Your task to perform on an android device: What's on my calendar tomorrow? Image 0: 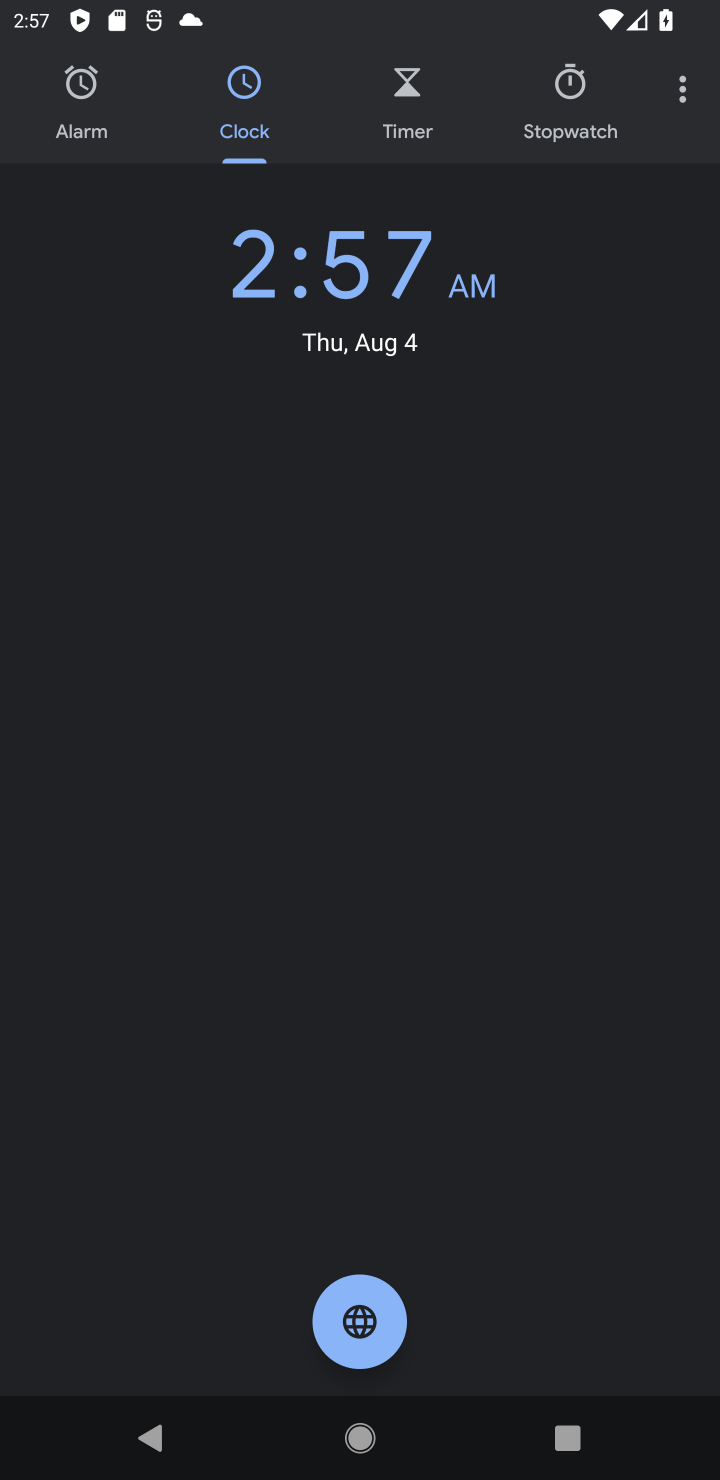
Step 0: press back button
Your task to perform on an android device: What's on my calendar tomorrow? Image 1: 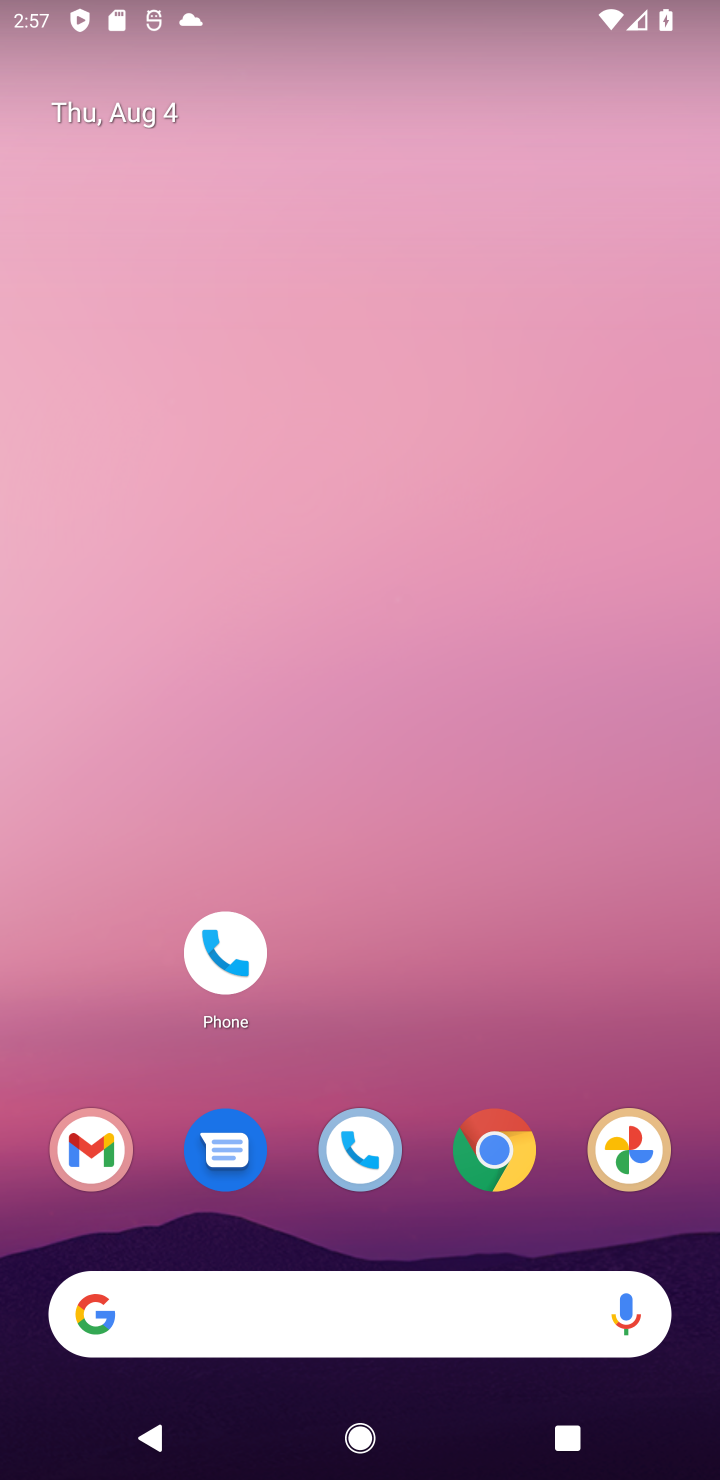
Step 1: drag from (459, 1348) to (320, 264)
Your task to perform on an android device: What's on my calendar tomorrow? Image 2: 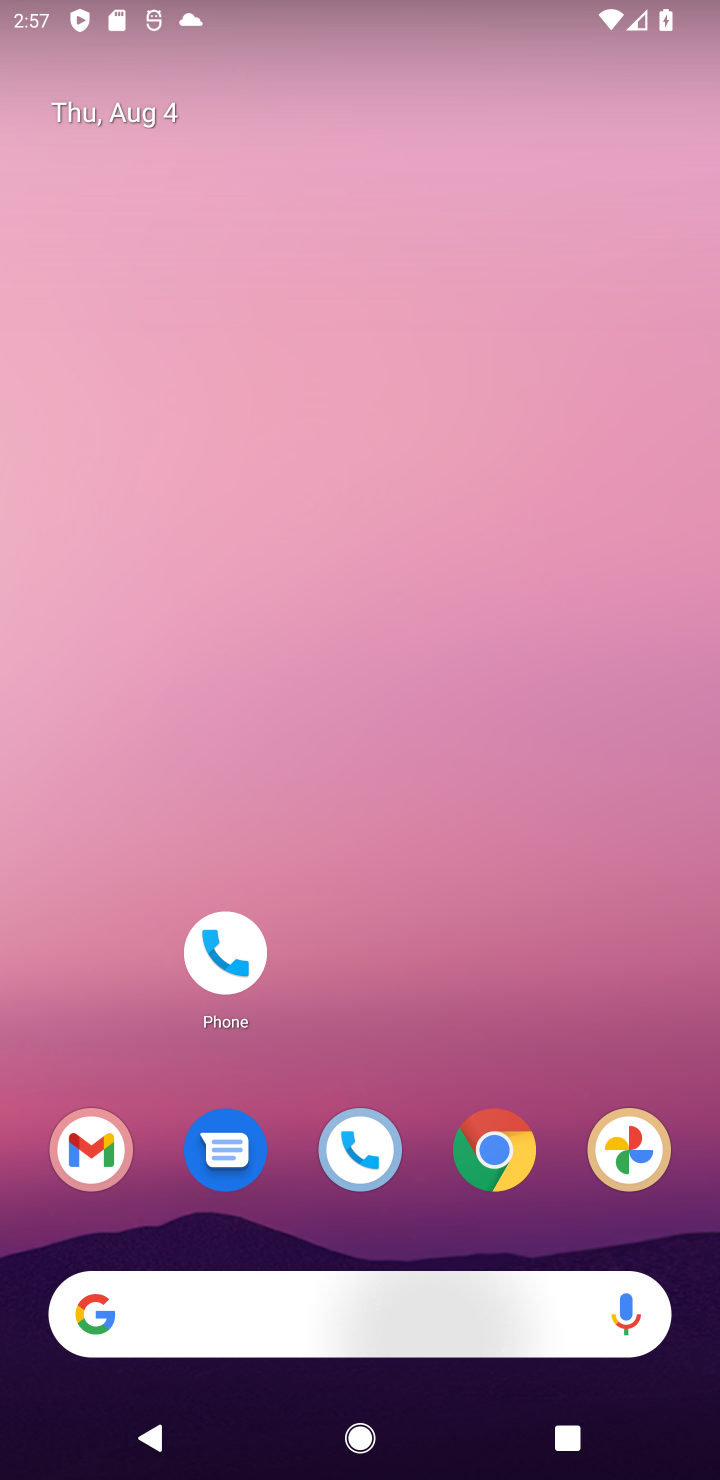
Step 2: click (259, 443)
Your task to perform on an android device: What's on my calendar tomorrow? Image 3: 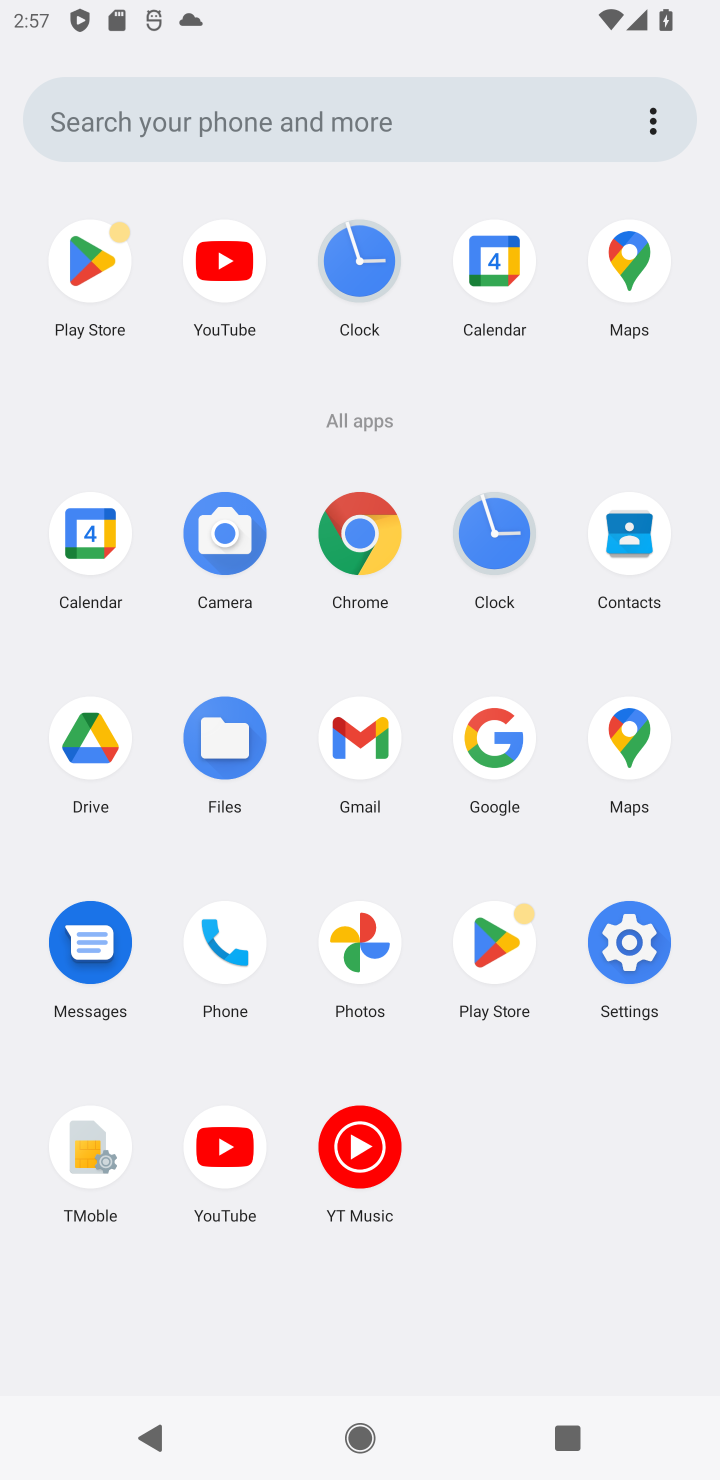
Step 3: click (491, 257)
Your task to perform on an android device: What's on my calendar tomorrow? Image 4: 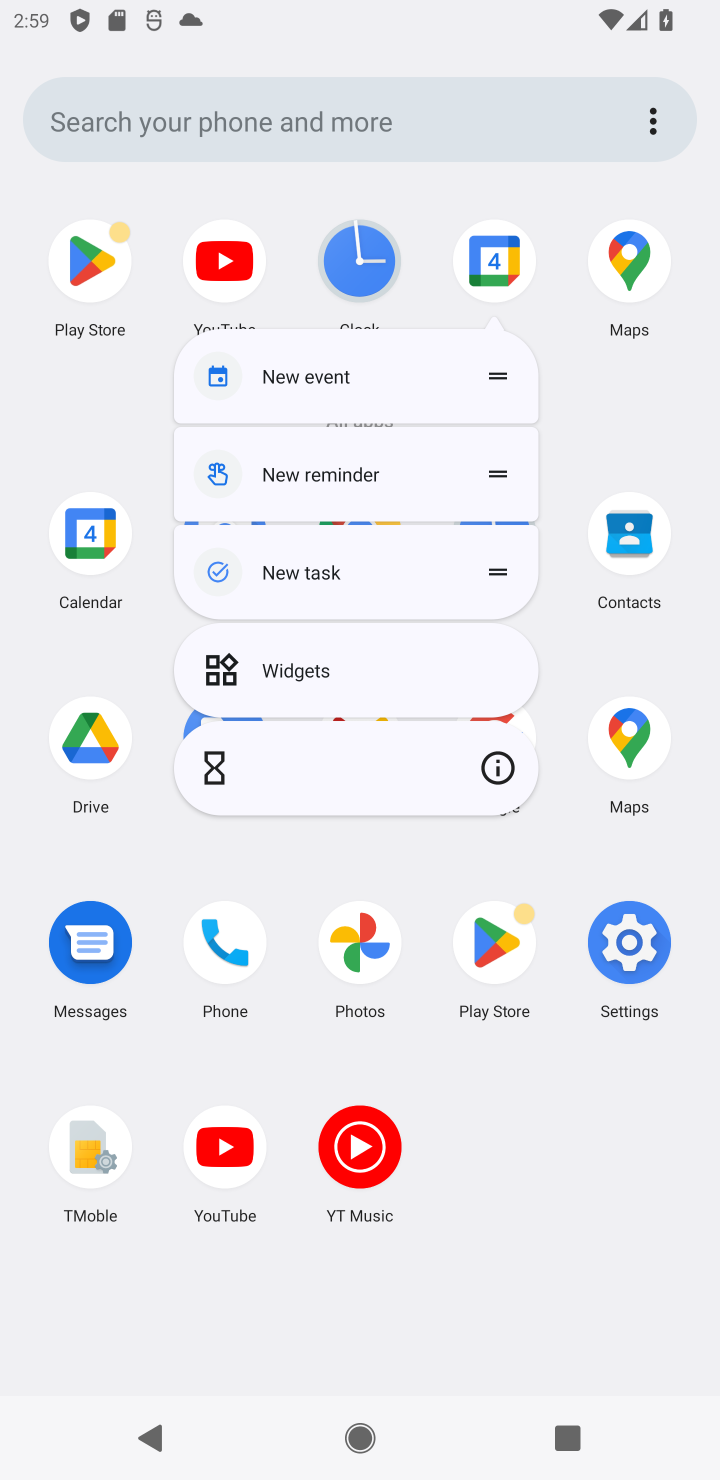
Step 4: click (304, 379)
Your task to perform on an android device: What's on my calendar tomorrow? Image 5: 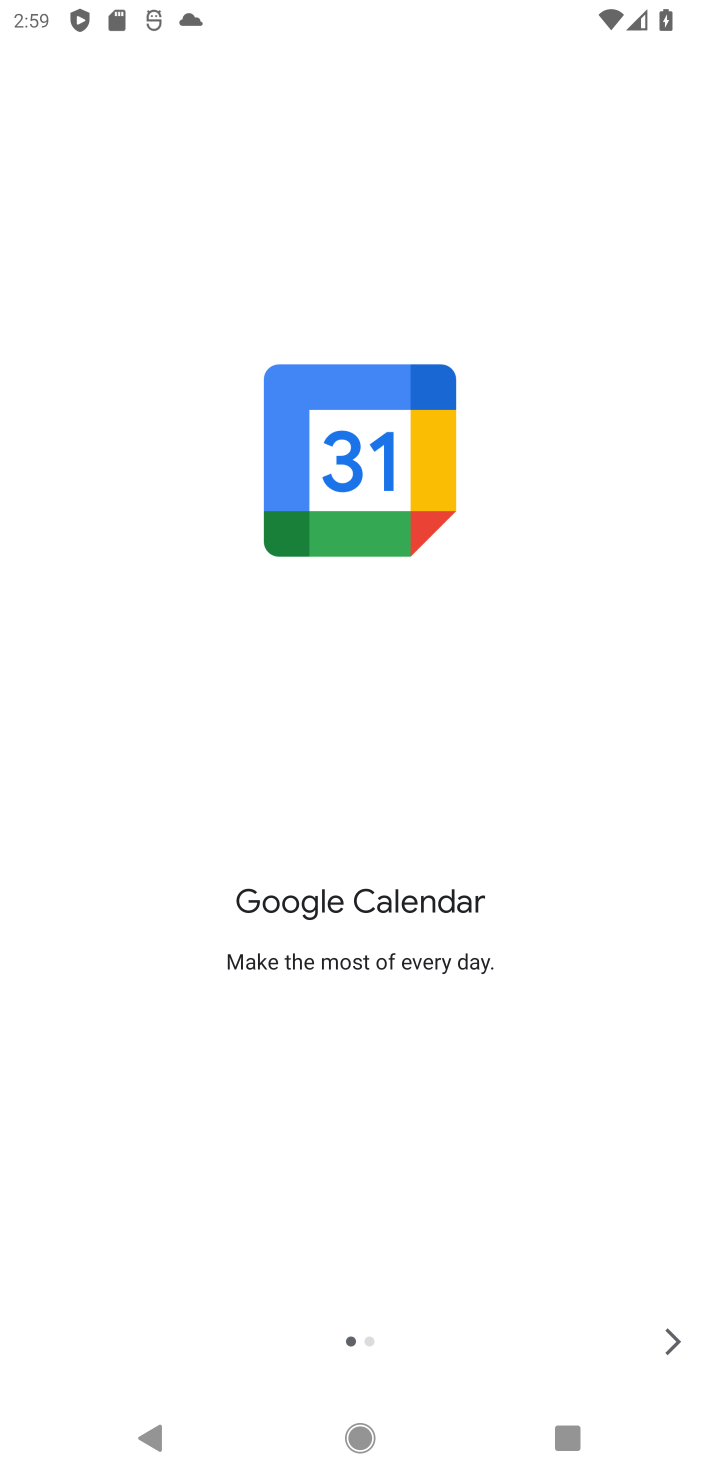
Step 5: click (675, 1344)
Your task to perform on an android device: What's on my calendar tomorrow? Image 6: 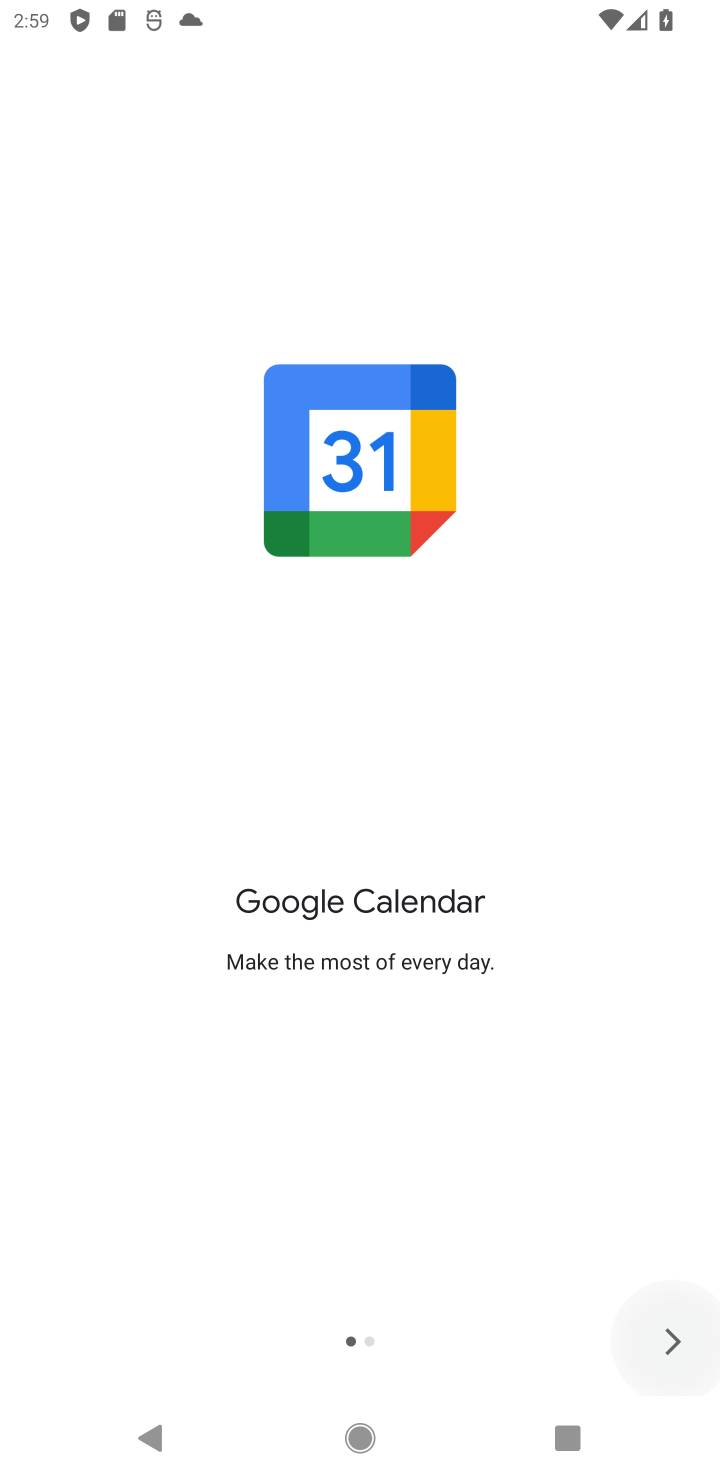
Step 6: click (675, 1344)
Your task to perform on an android device: What's on my calendar tomorrow? Image 7: 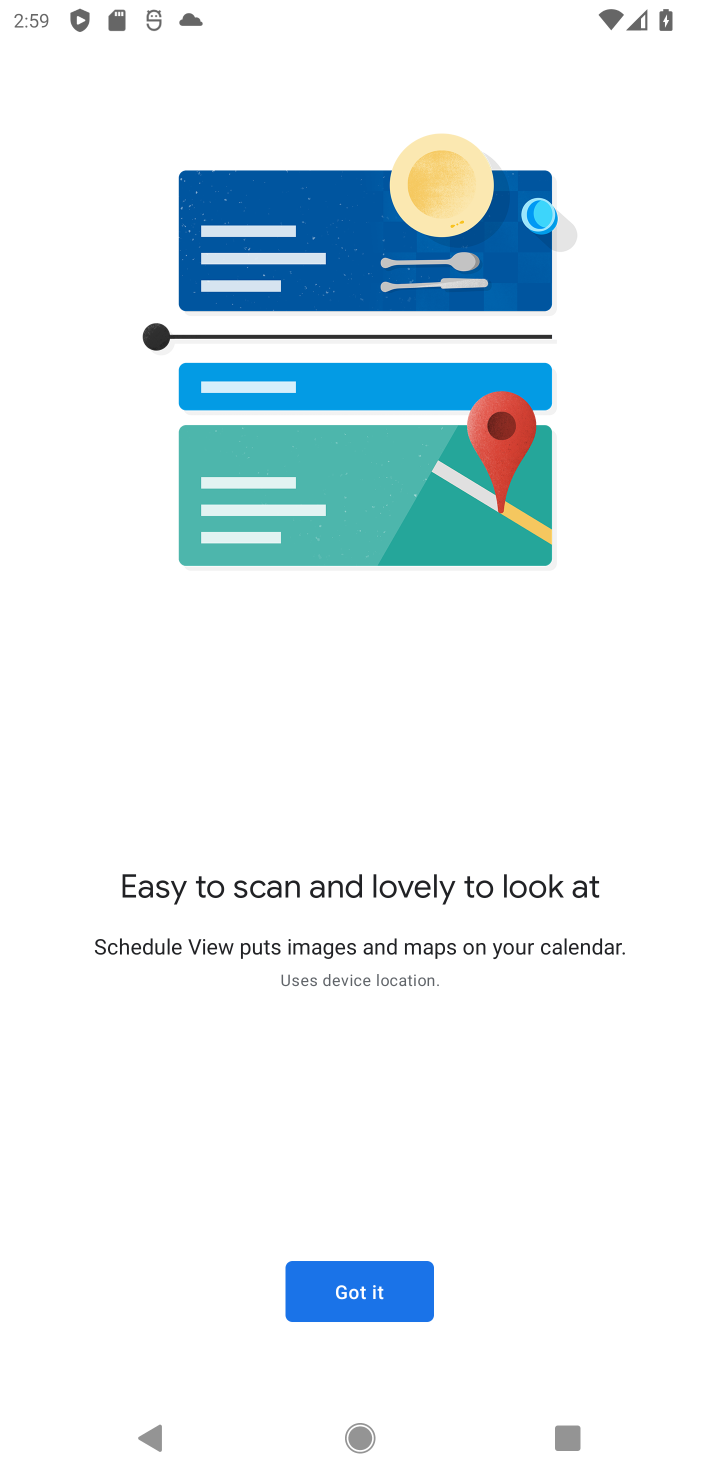
Step 7: click (372, 1292)
Your task to perform on an android device: What's on my calendar tomorrow? Image 8: 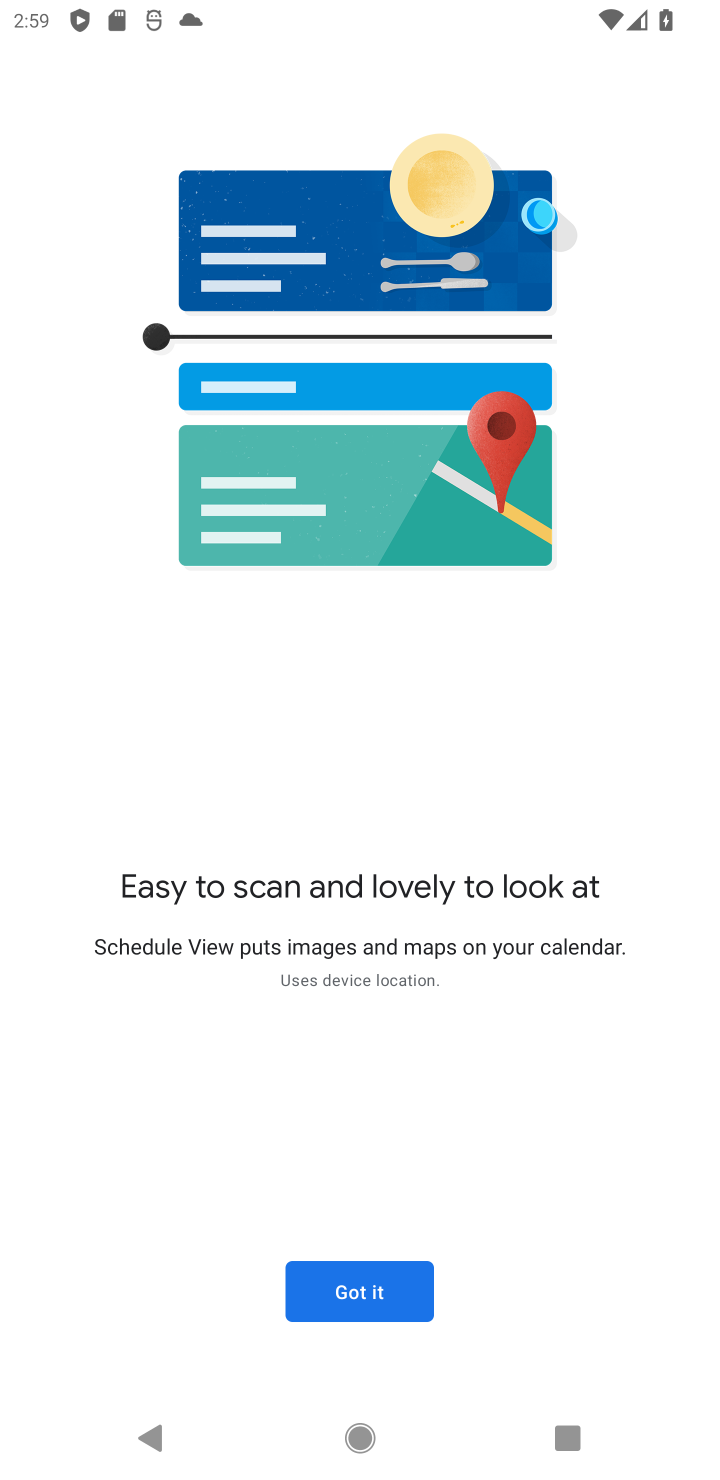
Step 8: click (374, 1292)
Your task to perform on an android device: What's on my calendar tomorrow? Image 9: 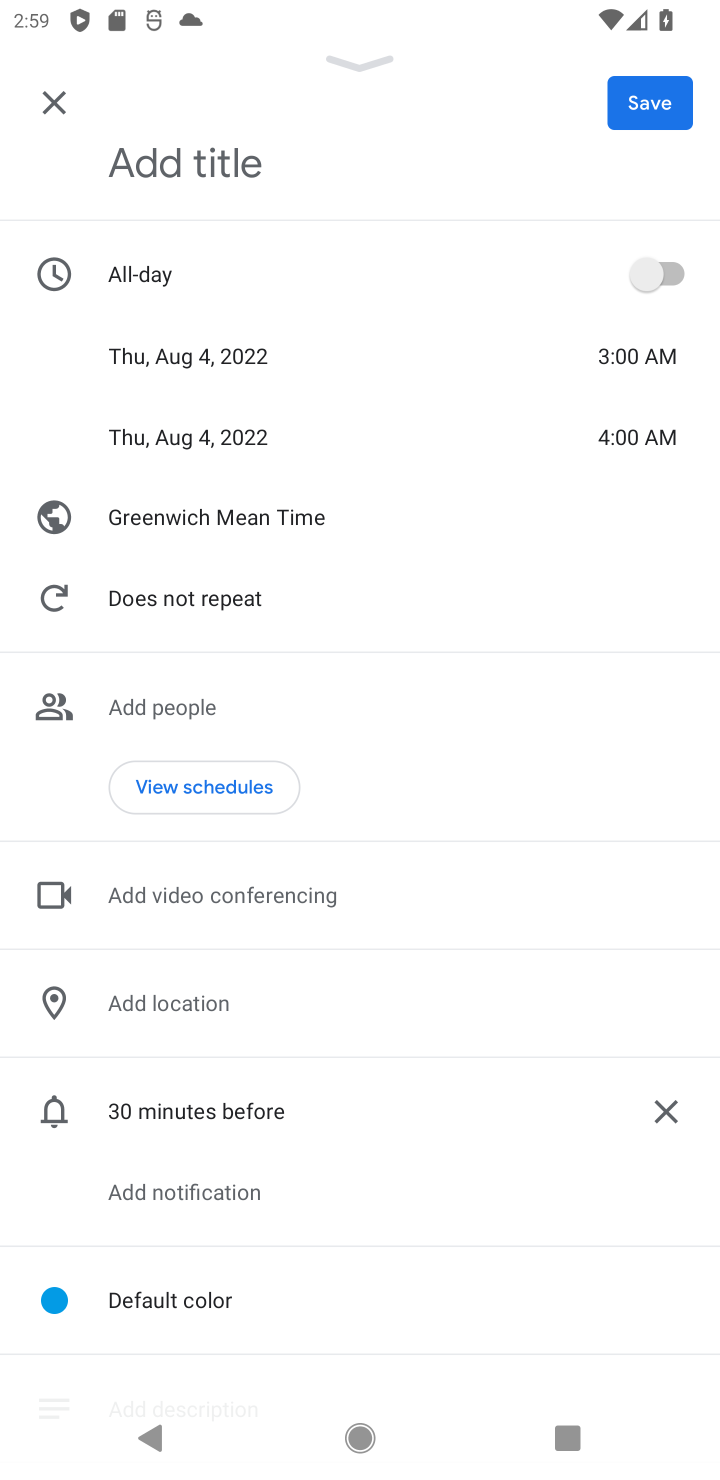
Step 9: click (47, 97)
Your task to perform on an android device: What's on my calendar tomorrow? Image 10: 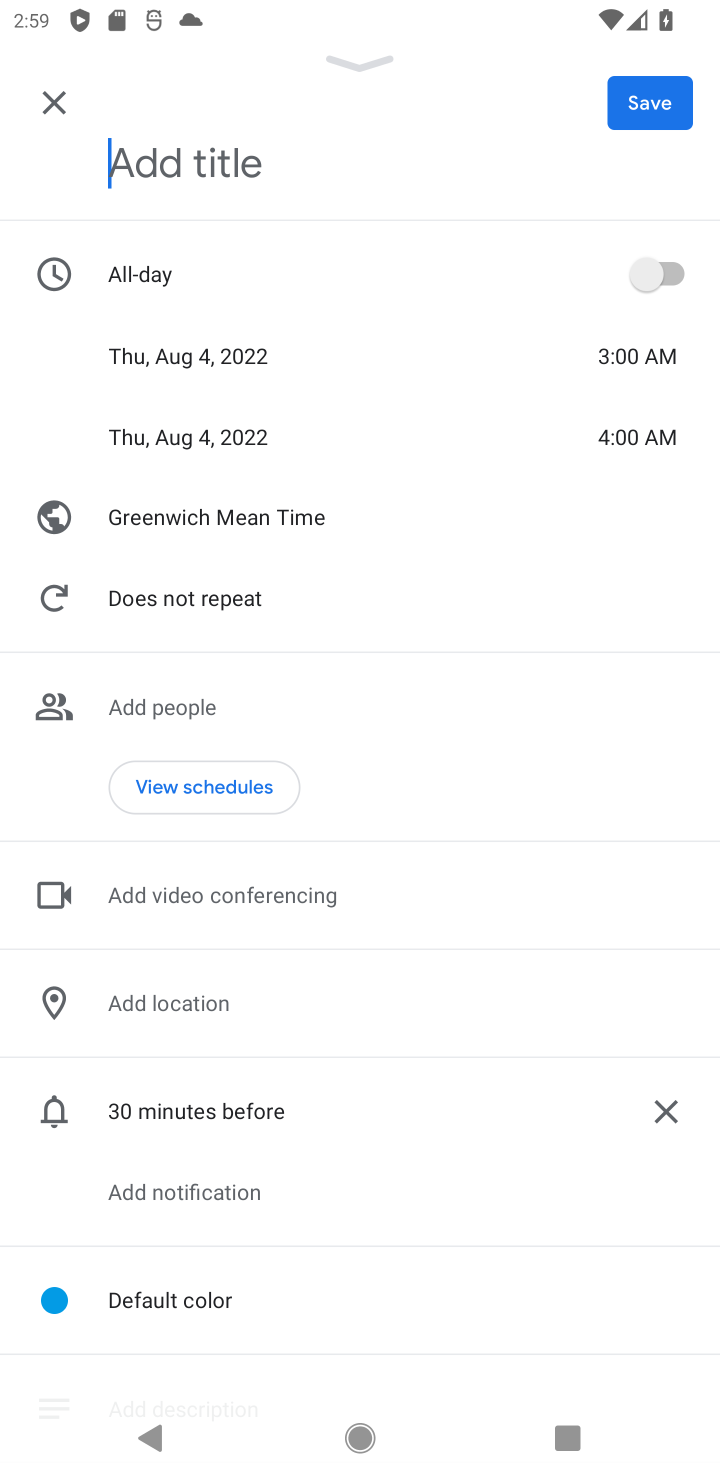
Step 10: click (47, 98)
Your task to perform on an android device: What's on my calendar tomorrow? Image 11: 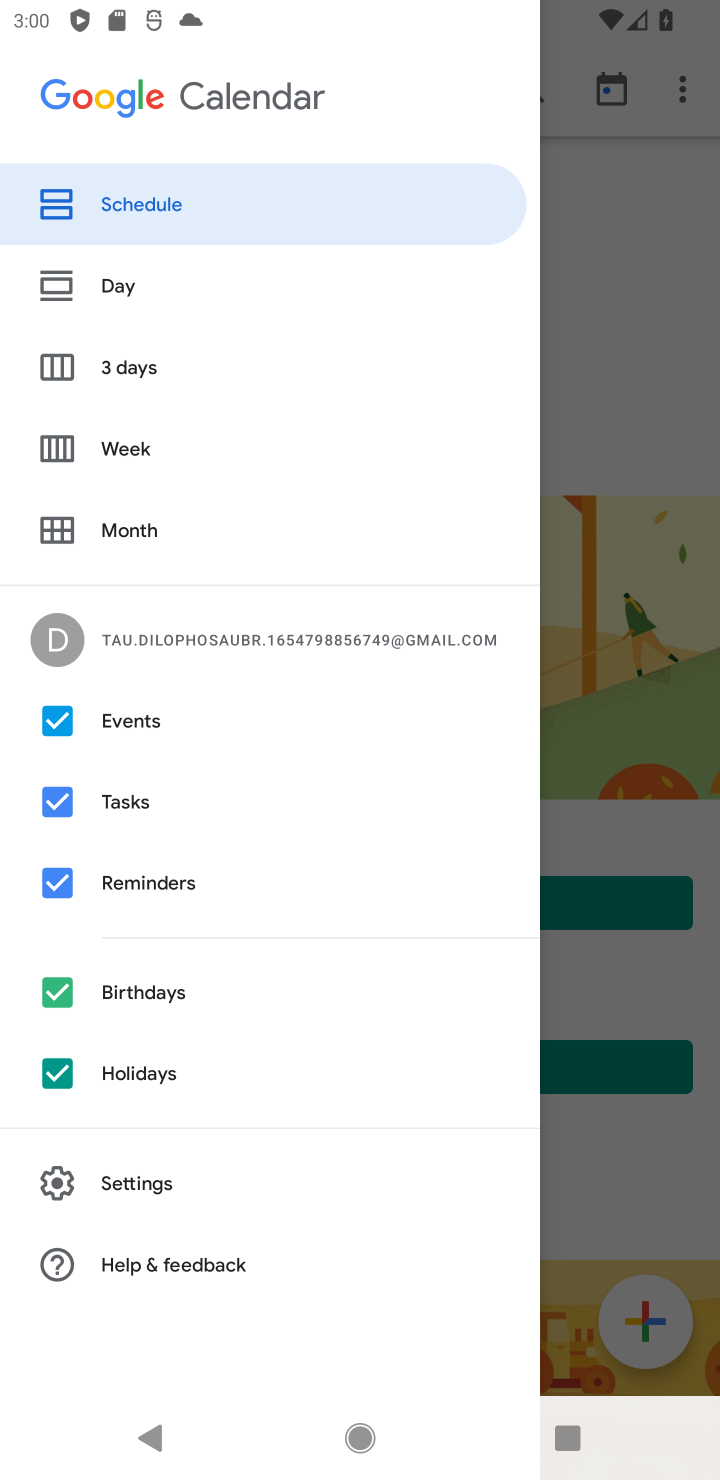
Step 11: click (116, 277)
Your task to perform on an android device: What's on my calendar tomorrow? Image 12: 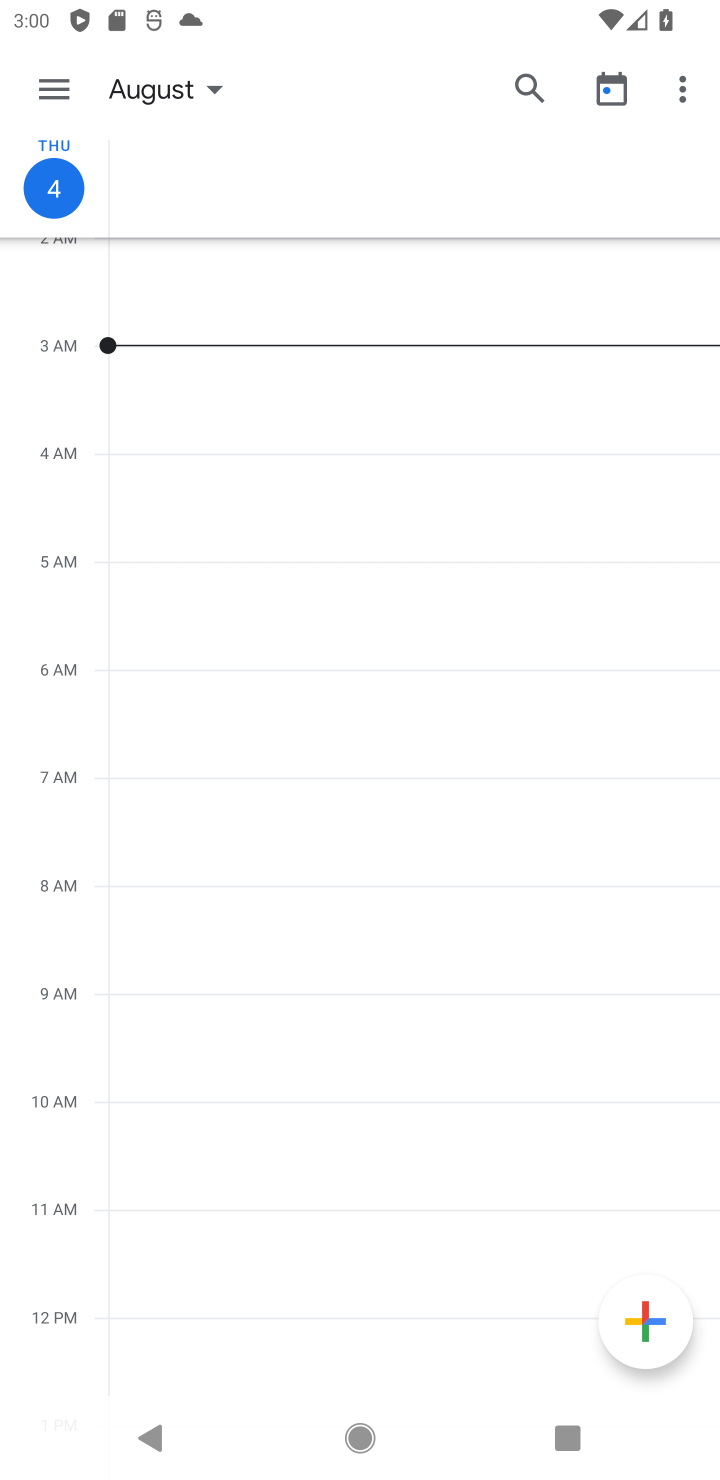
Step 12: click (209, 88)
Your task to perform on an android device: What's on my calendar tomorrow? Image 13: 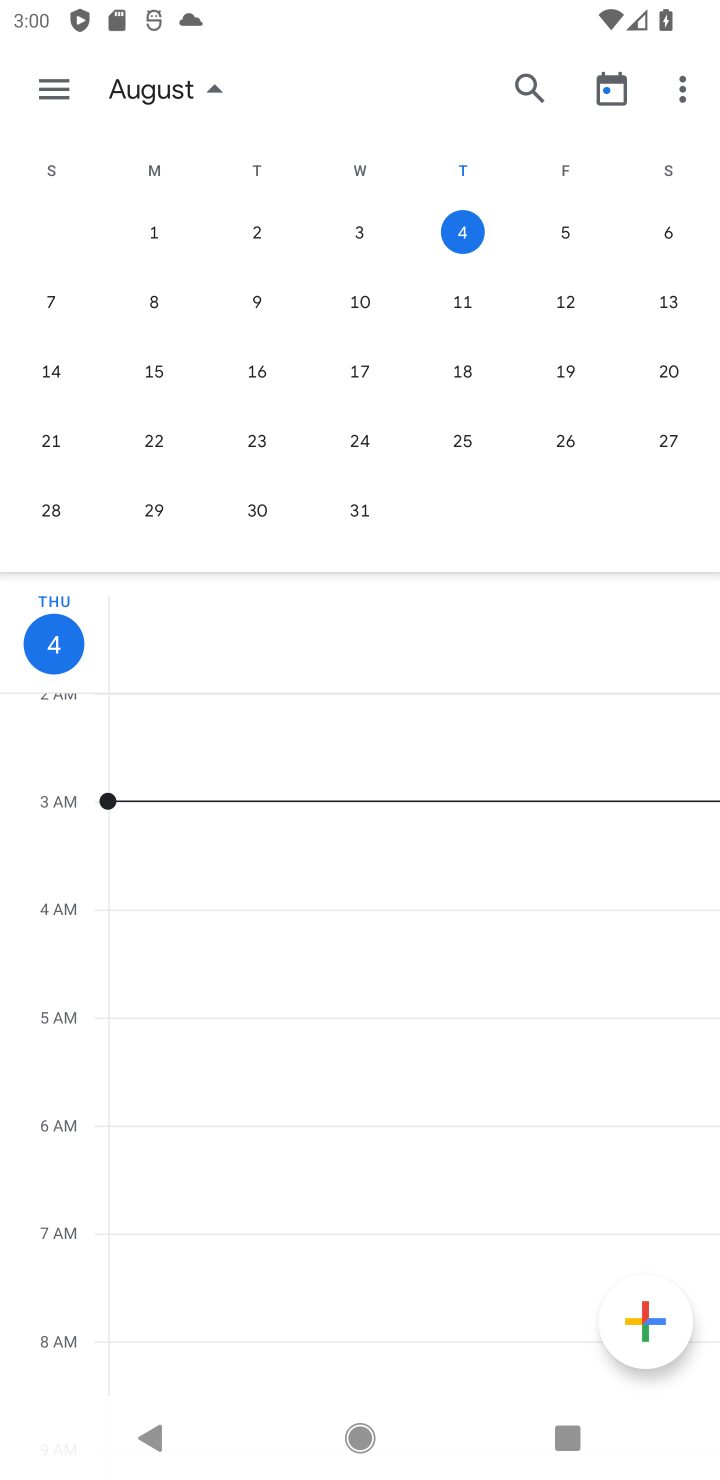
Step 13: click (559, 229)
Your task to perform on an android device: What's on my calendar tomorrow? Image 14: 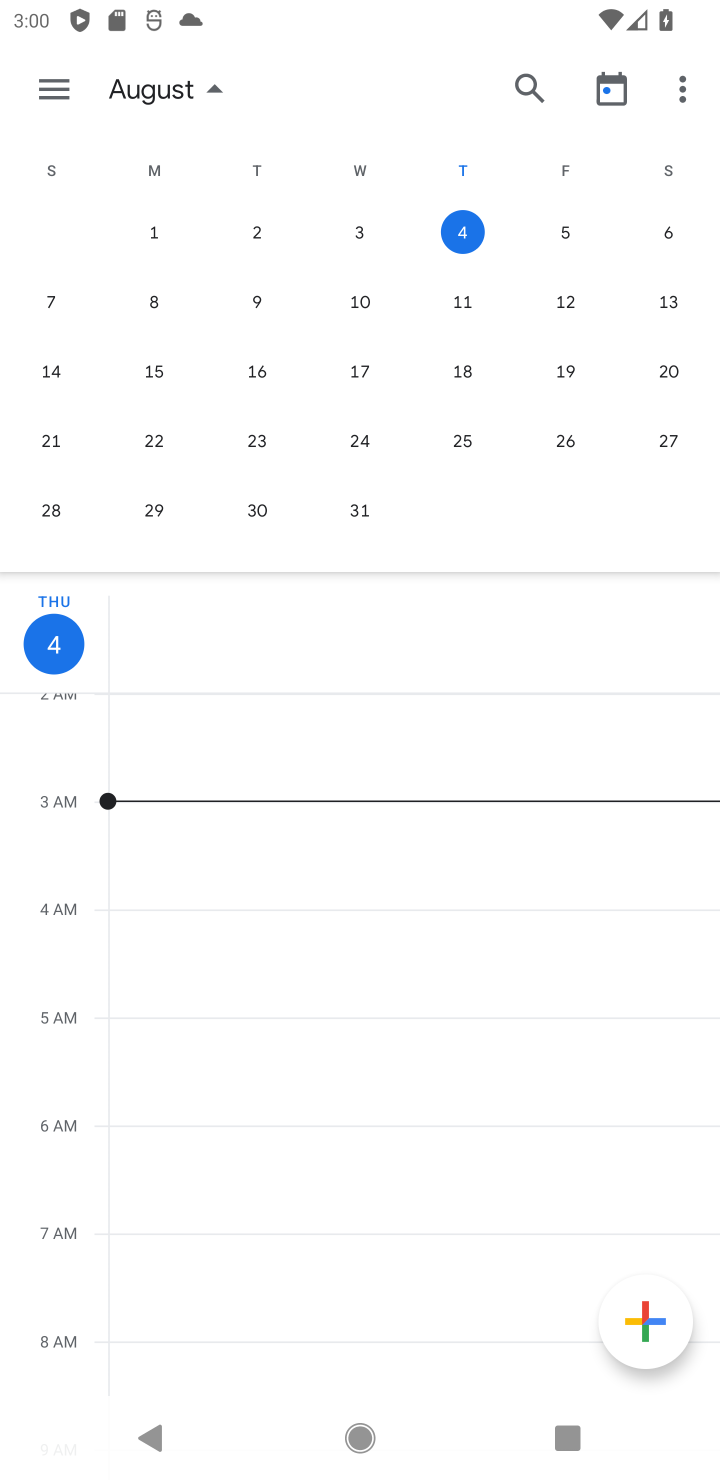
Step 14: click (561, 231)
Your task to perform on an android device: What's on my calendar tomorrow? Image 15: 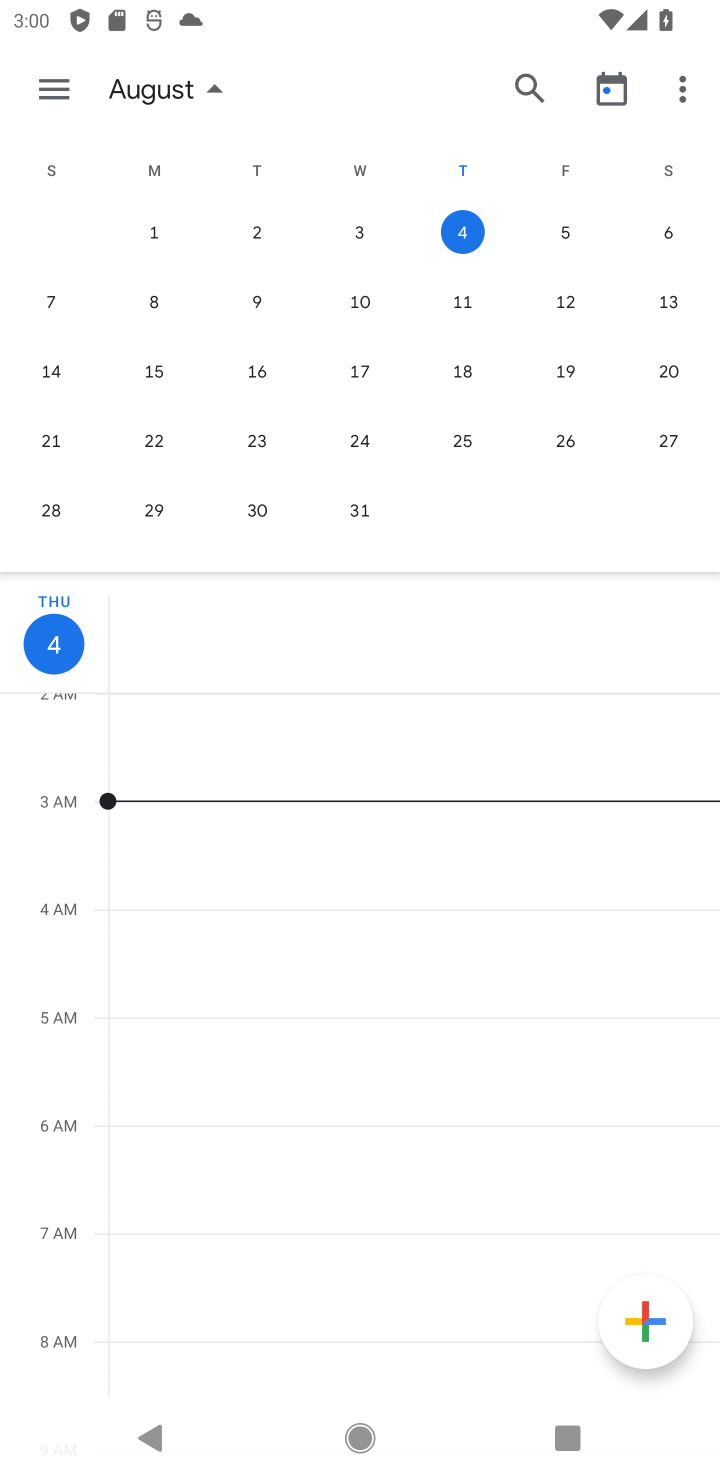
Step 15: click (566, 221)
Your task to perform on an android device: What's on my calendar tomorrow? Image 16: 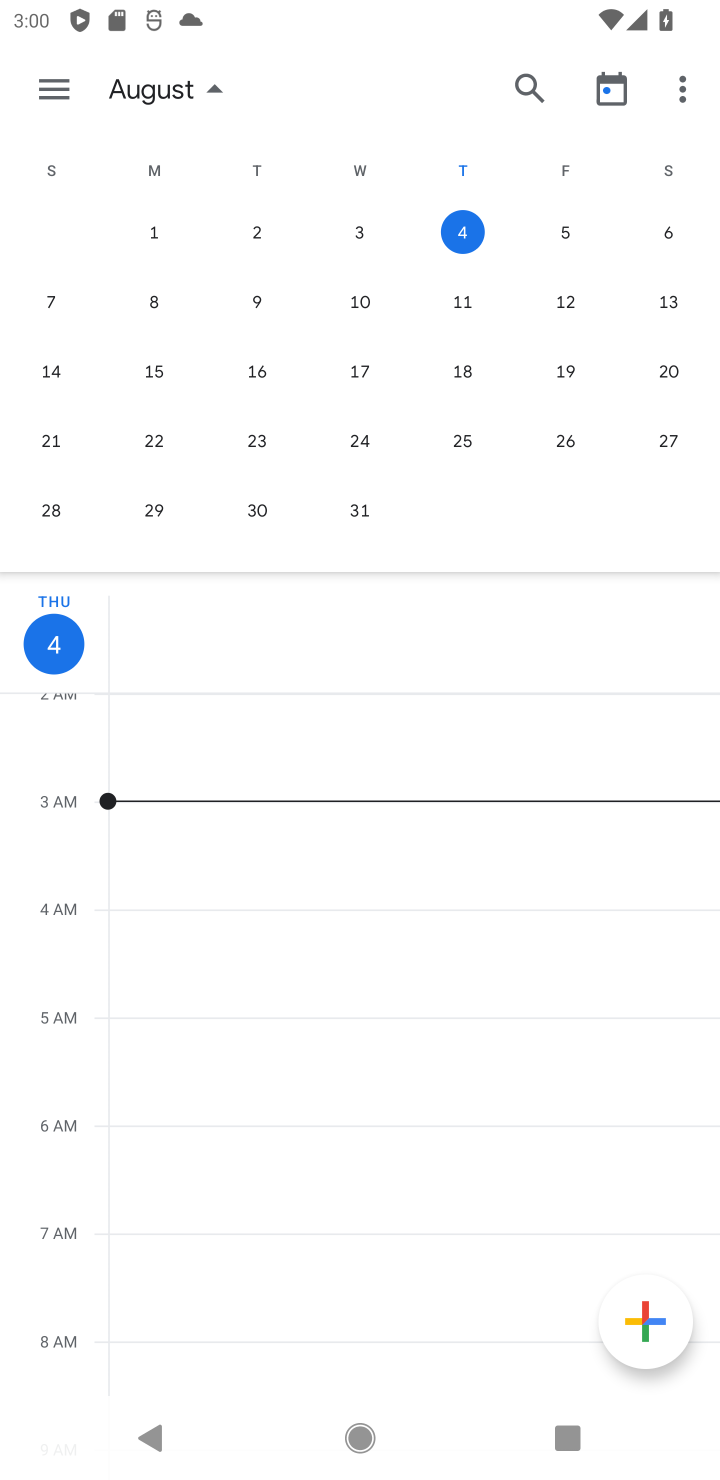
Step 16: click (573, 219)
Your task to perform on an android device: What's on my calendar tomorrow? Image 17: 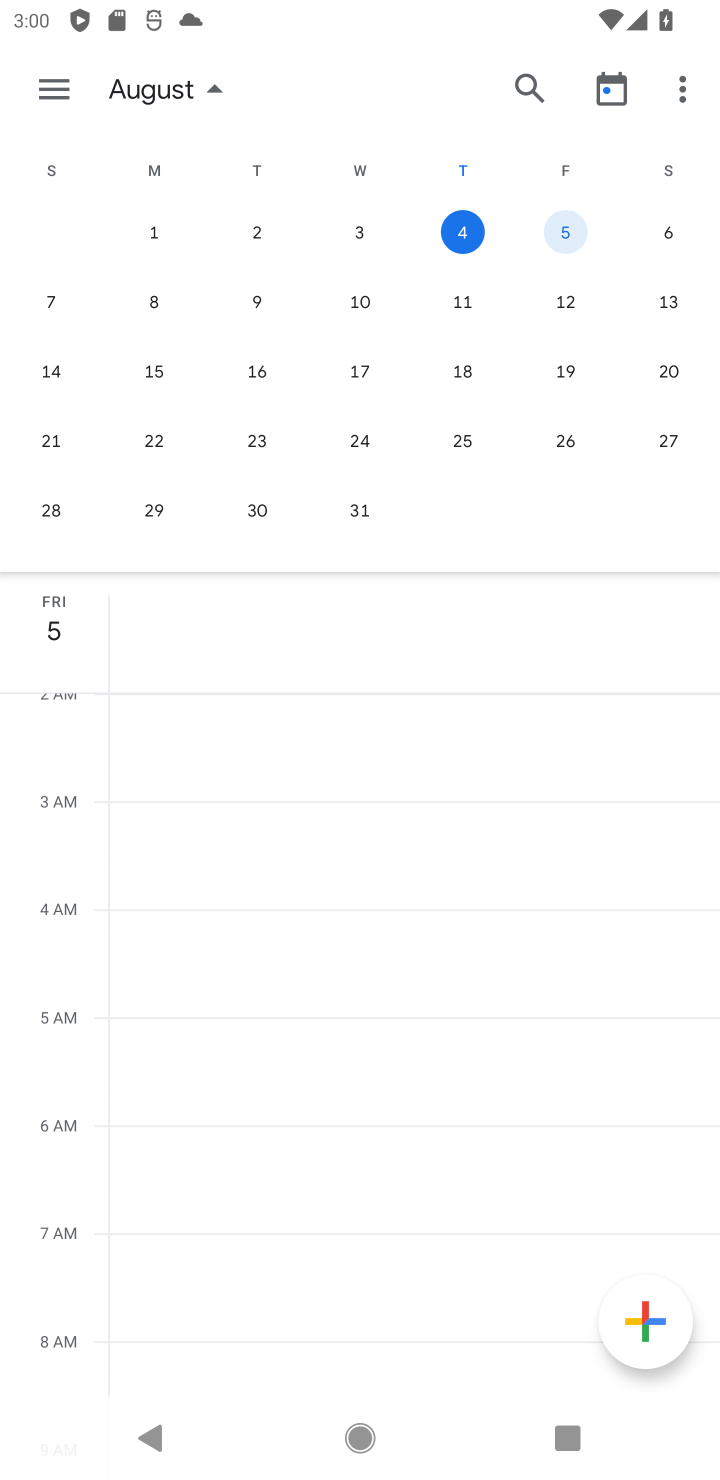
Step 17: task complete